Your task to perform on an android device: See recent photos Image 0: 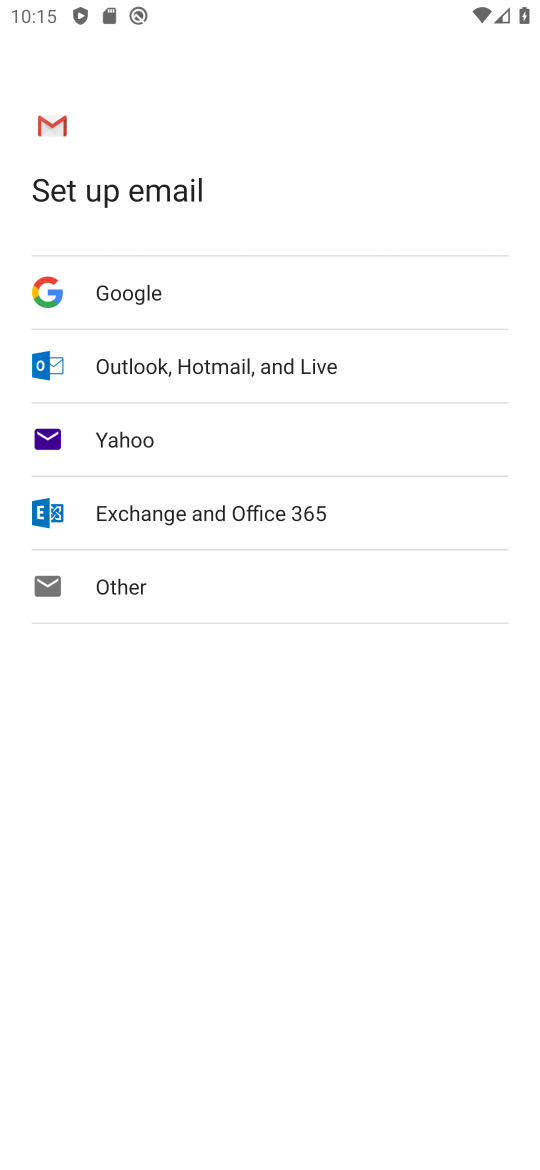
Step 0: press back button
Your task to perform on an android device: See recent photos Image 1: 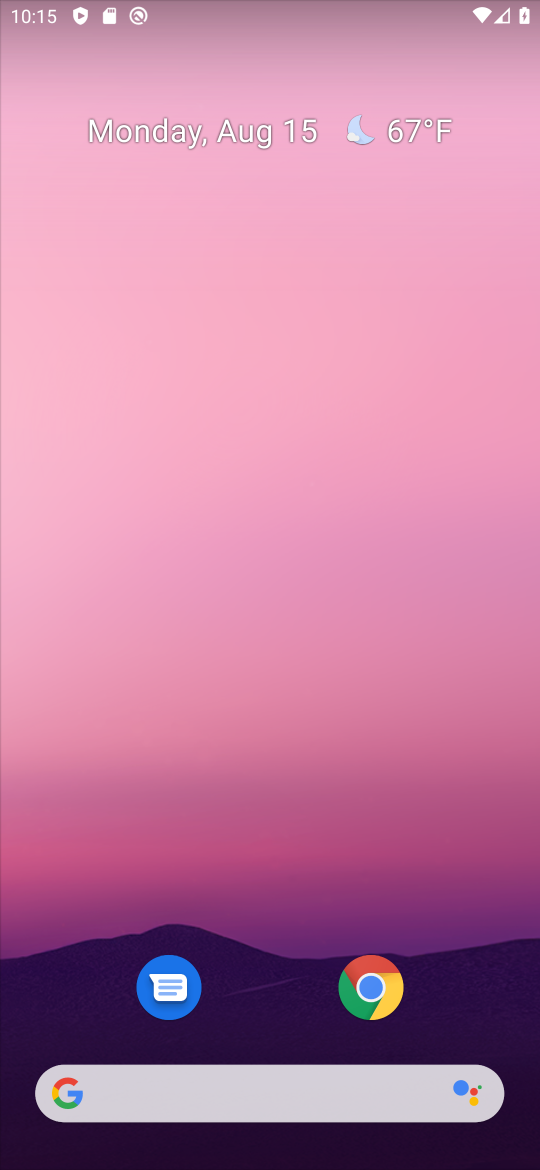
Step 1: drag from (232, 1032) to (71, 207)
Your task to perform on an android device: See recent photos Image 2: 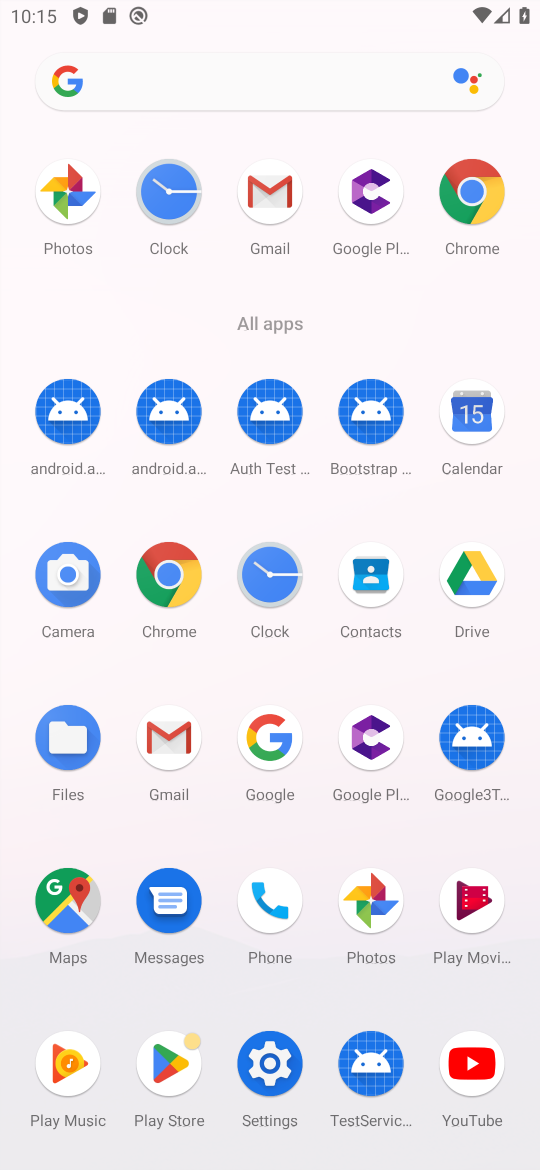
Step 2: click (386, 893)
Your task to perform on an android device: See recent photos Image 3: 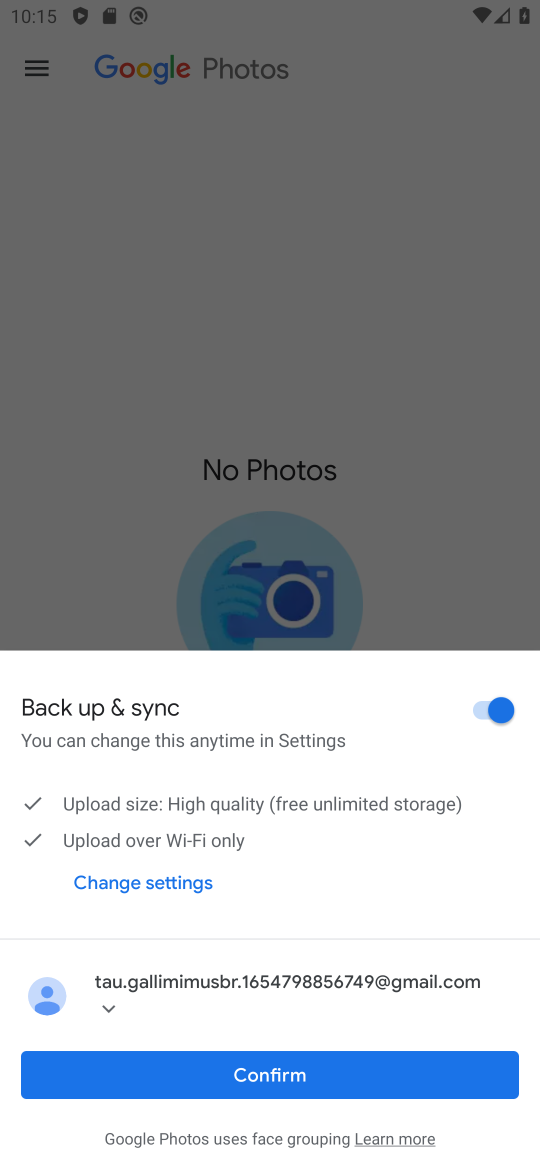
Step 3: click (230, 1081)
Your task to perform on an android device: See recent photos Image 4: 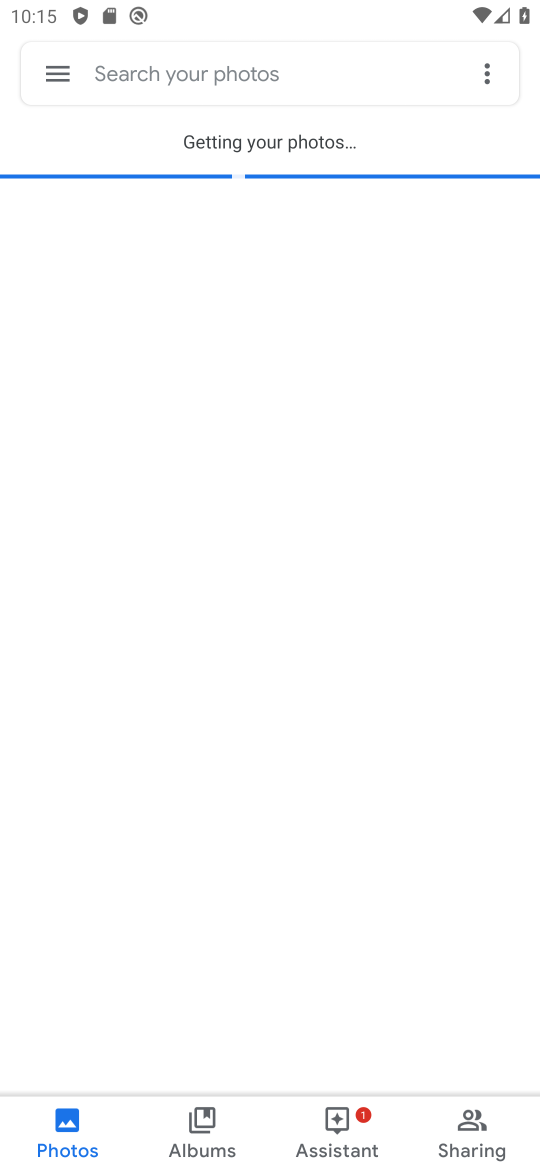
Step 4: task complete